Your task to perform on an android device: Go to Yahoo.com Image 0: 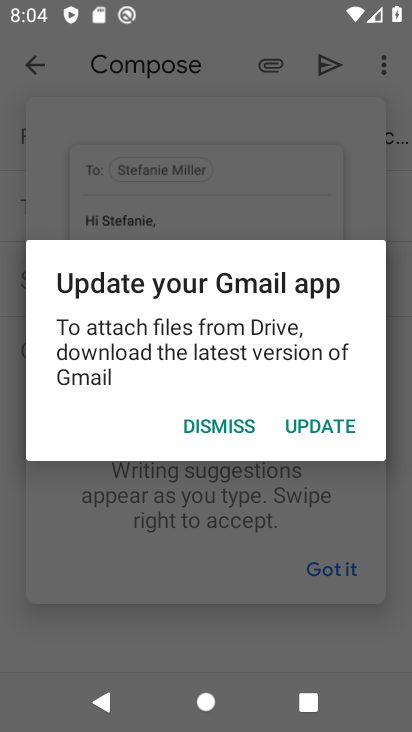
Step 0: press home button
Your task to perform on an android device: Go to Yahoo.com Image 1: 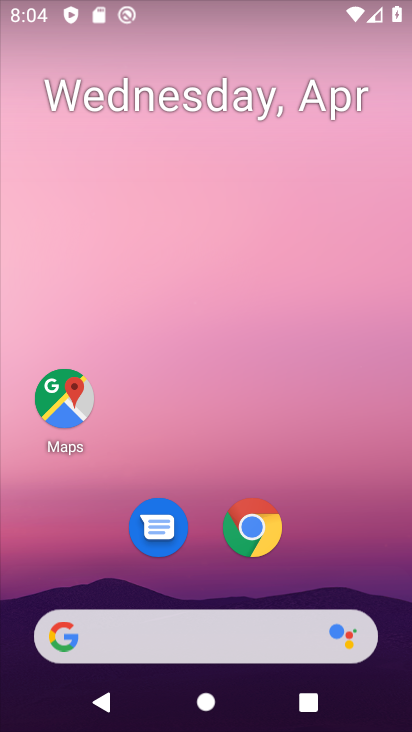
Step 1: click (354, 179)
Your task to perform on an android device: Go to Yahoo.com Image 2: 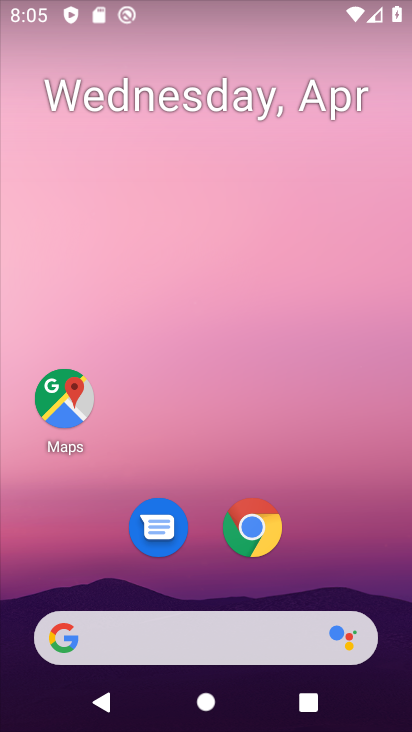
Step 2: drag from (300, 535) to (319, 198)
Your task to perform on an android device: Go to Yahoo.com Image 3: 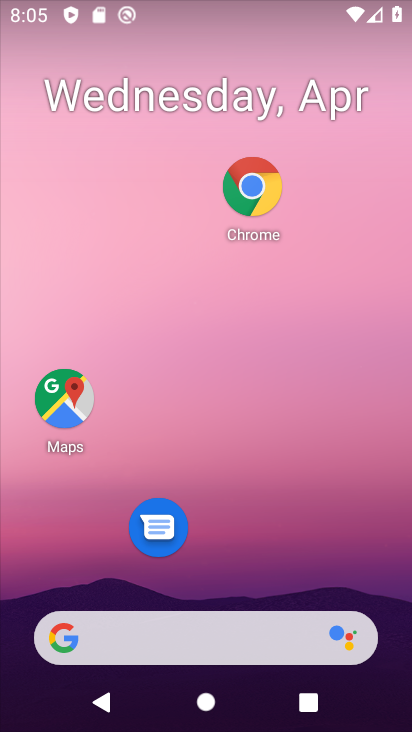
Step 3: drag from (213, 582) to (317, 110)
Your task to perform on an android device: Go to Yahoo.com Image 4: 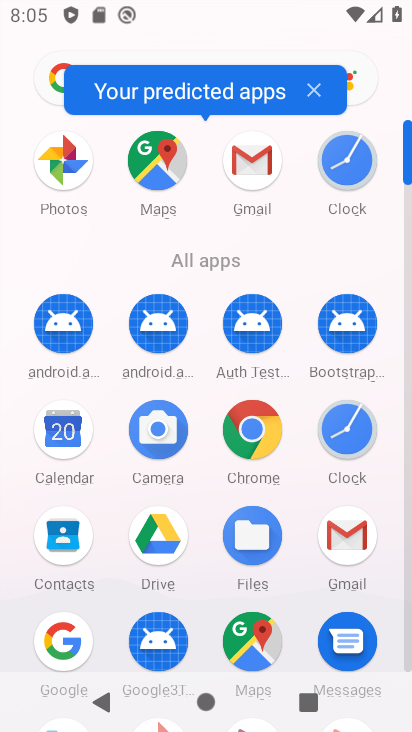
Step 4: click (248, 427)
Your task to perform on an android device: Go to Yahoo.com Image 5: 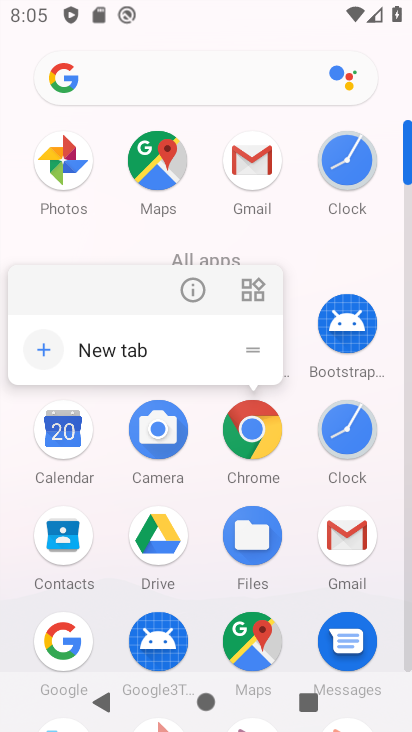
Step 5: click (248, 427)
Your task to perform on an android device: Go to Yahoo.com Image 6: 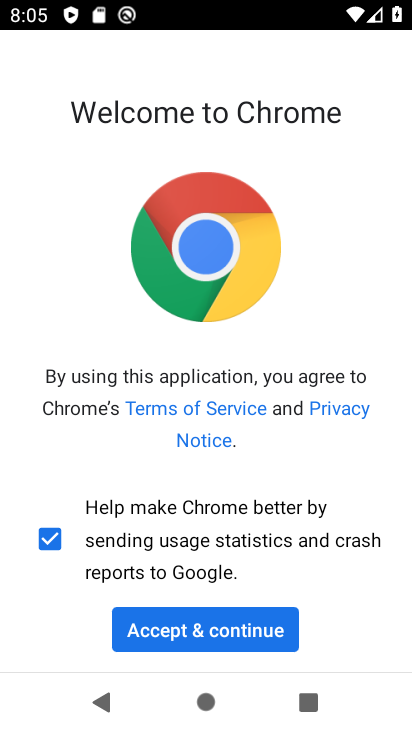
Step 6: click (195, 626)
Your task to perform on an android device: Go to Yahoo.com Image 7: 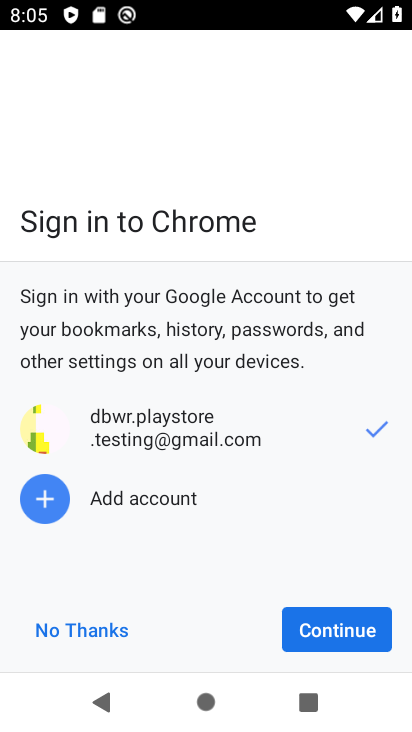
Step 7: click (324, 625)
Your task to perform on an android device: Go to Yahoo.com Image 8: 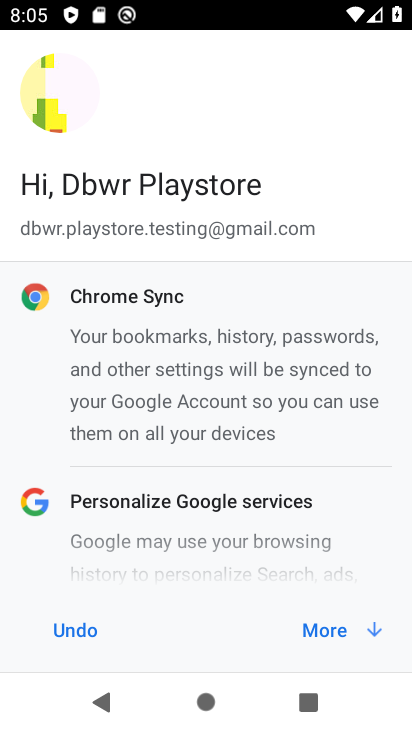
Step 8: click (324, 625)
Your task to perform on an android device: Go to Yahoo.com Image 9: 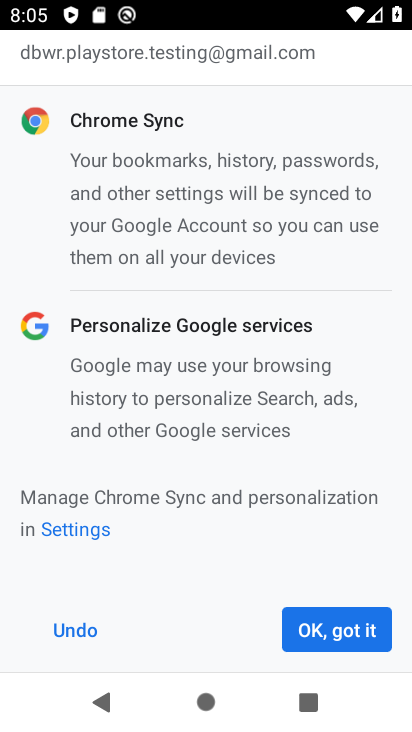
Step 9: click (326, 624)
Your task to perform on an android device: Go to Yahoo.com Image 10: 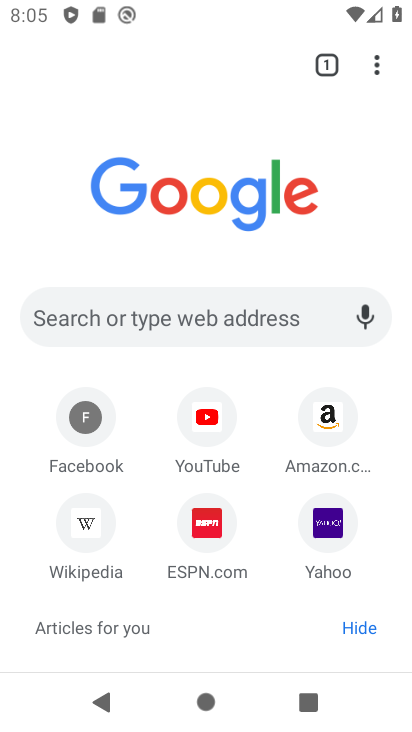
Step 10: click (336, 502)
Your task to perform on an android device: Go to Yahoo.com Image 11: 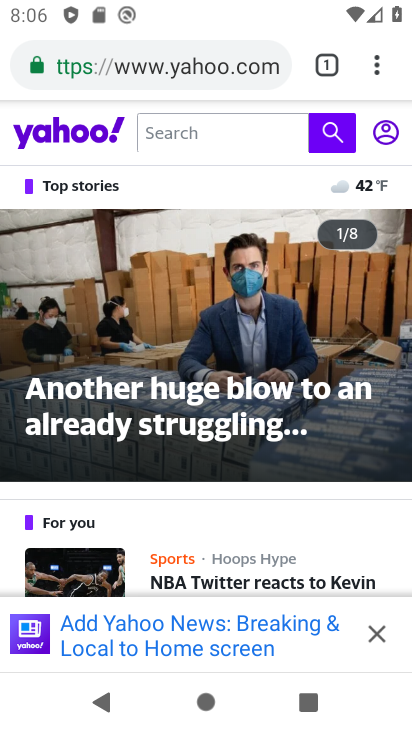
Step 11: task complete